Your task to perform on an android device: toggle improve location accuracy Image 0: 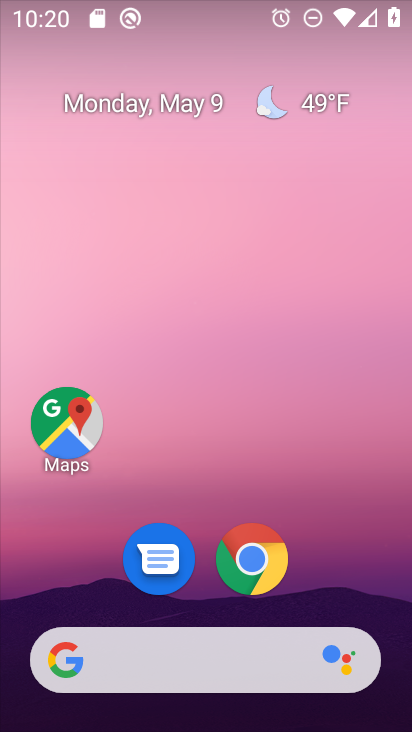
Step 0: drag from (198, 723) to (204, 259)
Your task to perform on an android device: toggle improve location accuracy Image 1: 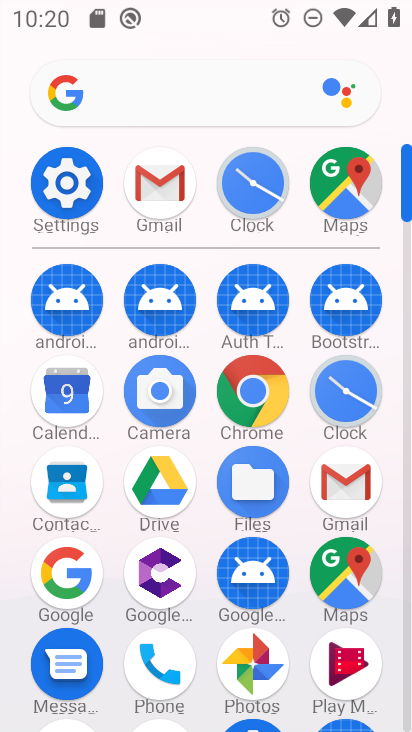
Step 1: click (68, 180)
Your task to perform on an android device: toggle improve location accuracy Image 2: 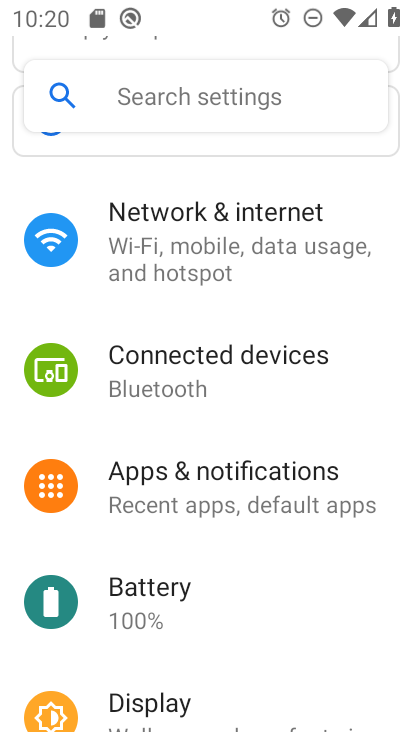
Step 2: drag from (189, 660) to (174, 274)
Your task to perform on an android device: toggle improve location accuracy Image 3: 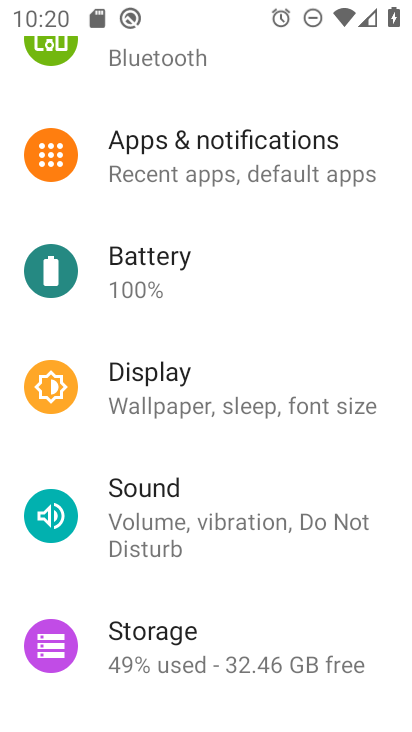
Step 3: drag from (187, 701) to (181, 274)
Your task to perform on an android device: toggle improve location accuracy Image 4: 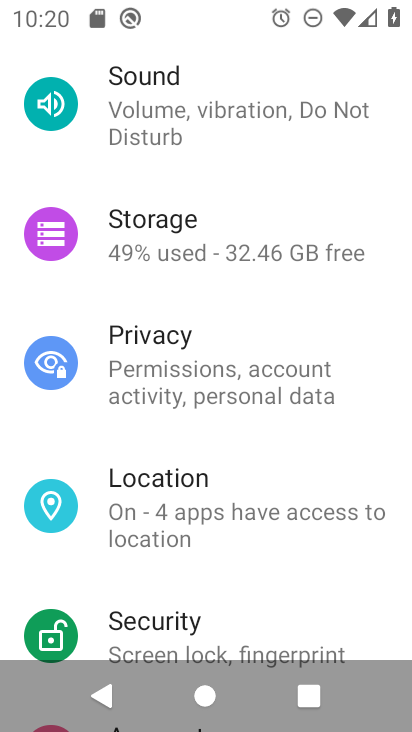
Step 4: click (151, 494)
Your task to perform on an android device: toggle improve location accuracy Image 5: 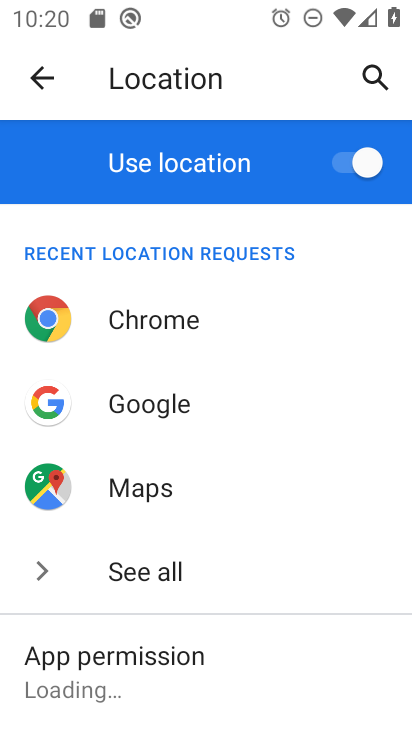
Step 5: drag from (202, 645) to (205, 248)
Your task to perform on an android device: toggle improve location accuracy Image 6: 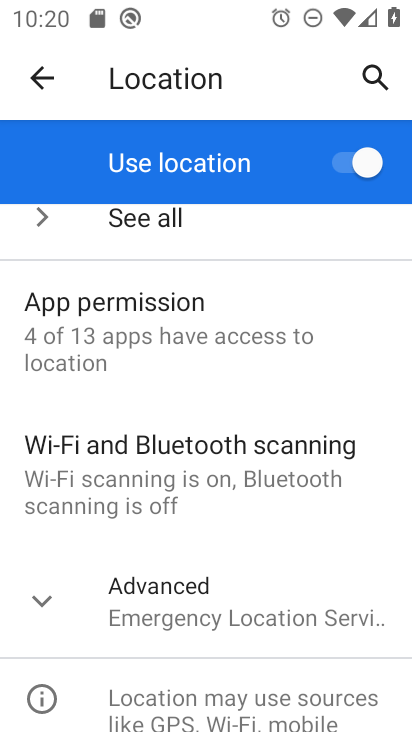
Step 6: click (164, 599)
Your task to perform on an android device: toggle improve location accuracy Image 7: 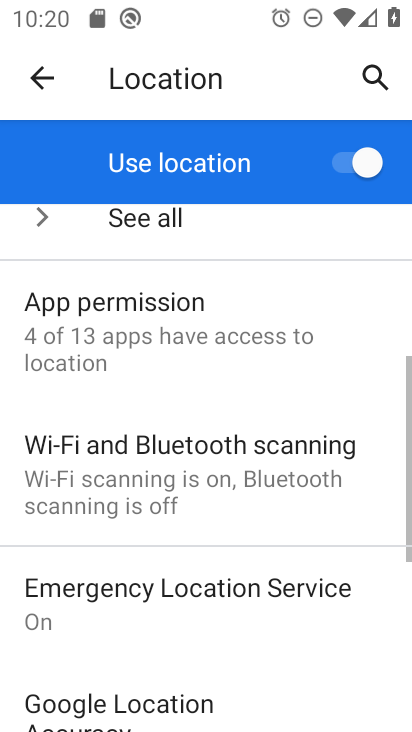
Step 7: drag from (193, 669) to (193, 378)
Your task to perform on an android device: toggle improve location accuracy Image 8: 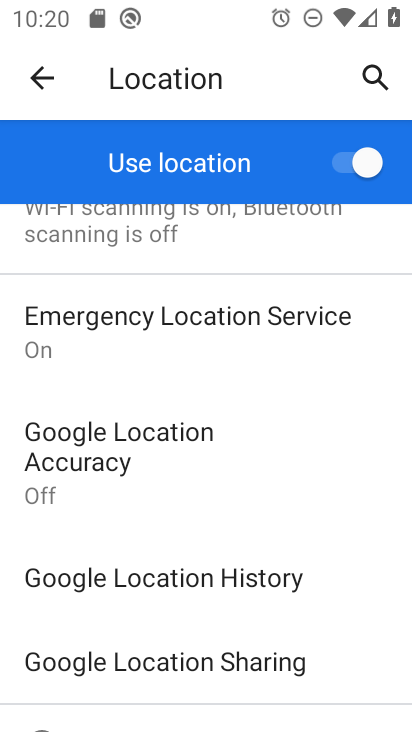
Step 8: click (113, 441)
Your task to perform on an android device: toggle improve location accuracy Image 9: 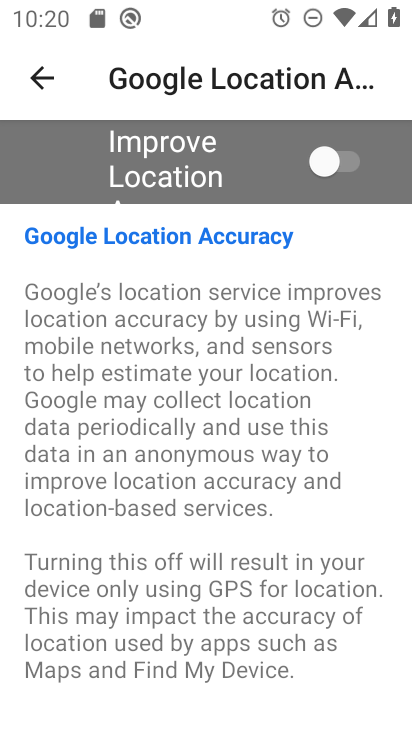
Step 9: click (352, 168)
Your task to perform on an android device: toggle improve location accuracy Image 10: 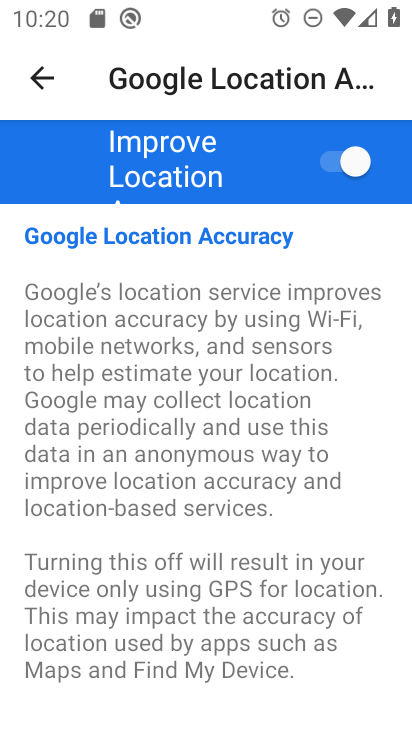
Step 10: task complete